Your task to perform on an android device: Open settings on Google Maps Image 0: 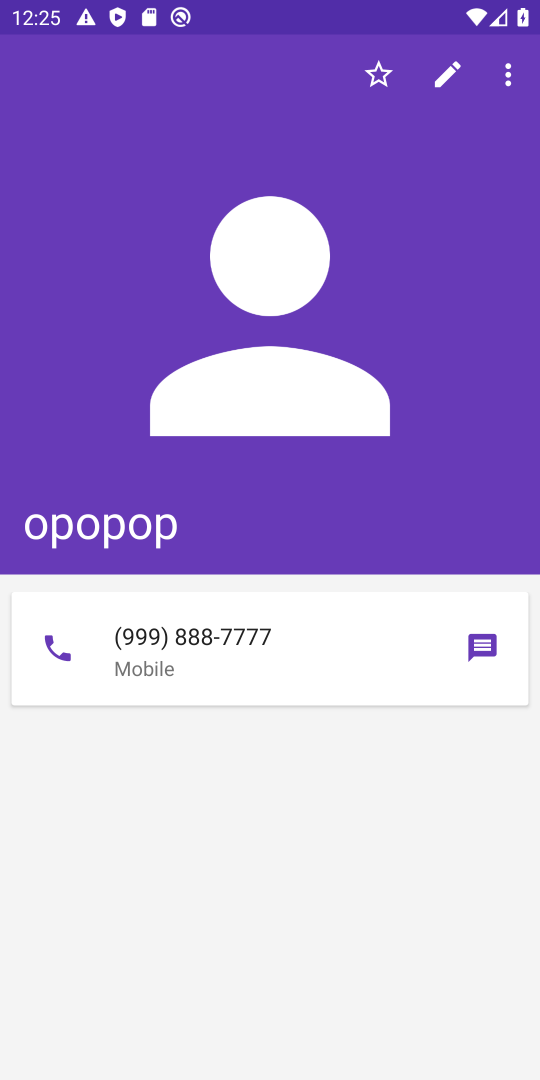
Step 0: press home button
Your task to perform on an android device: Open settings on Google Maps Image 1: 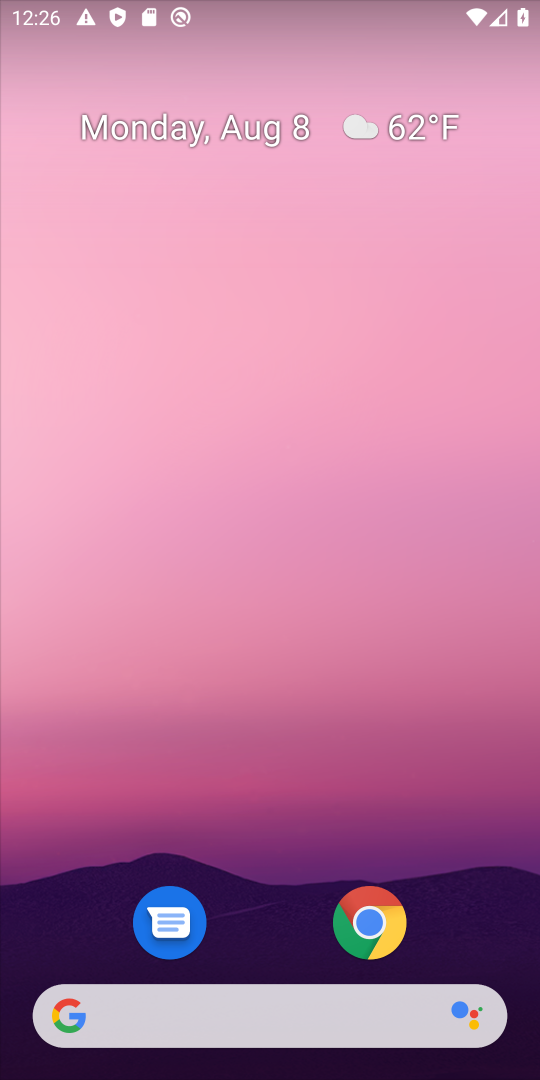
Step 1: drag from (471, 909) to (341, 257)
Your task to perform on an android device: Open settings on Google Maps Image 2: 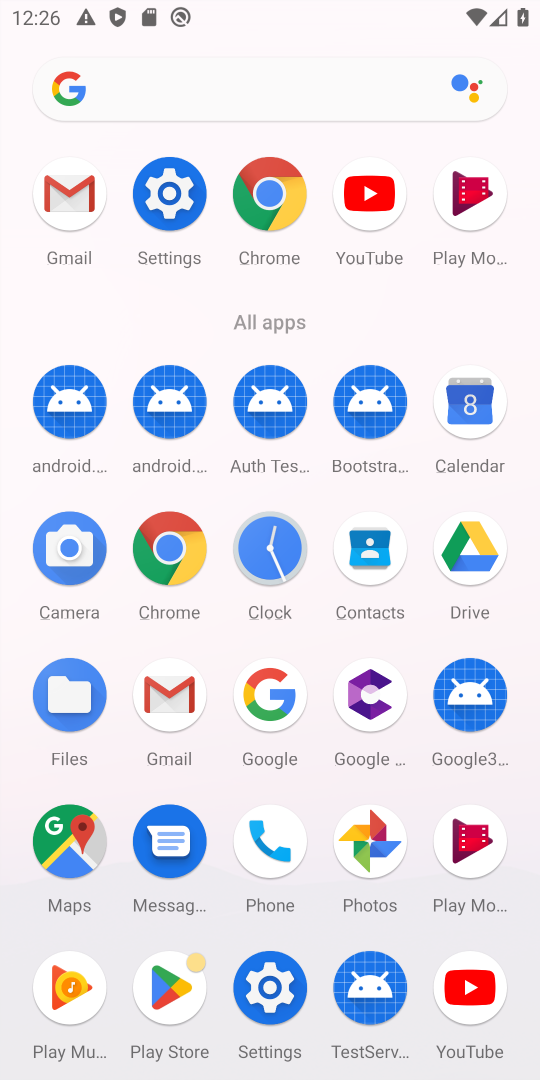
Step 2: click (72, 842)
Your task to perform on an android device: Open settings on Google Maps Image 3: 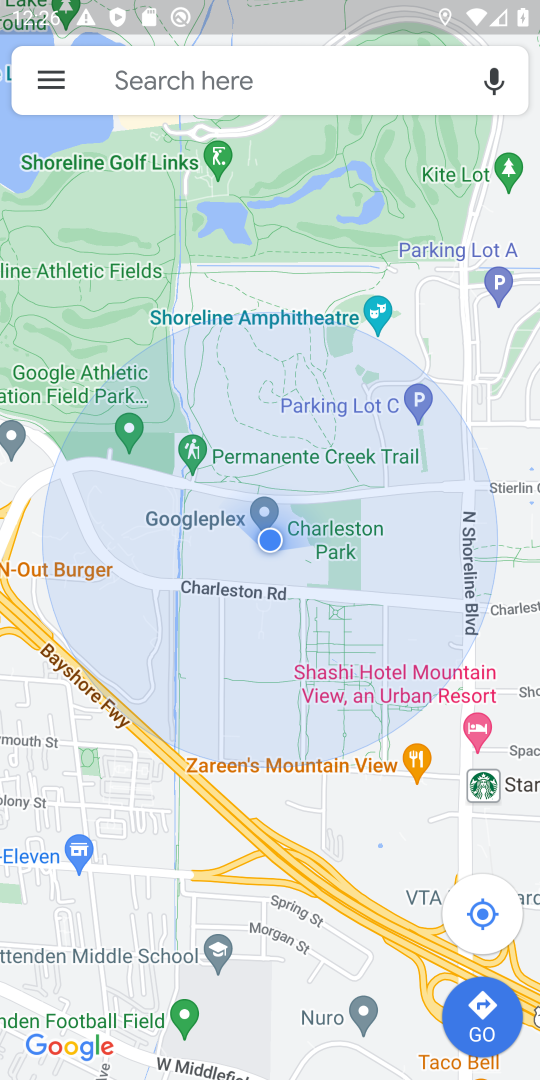
Step 3: click (51, 80)
Your task to perform on an android device: Open settings on Google Maps Image 4: 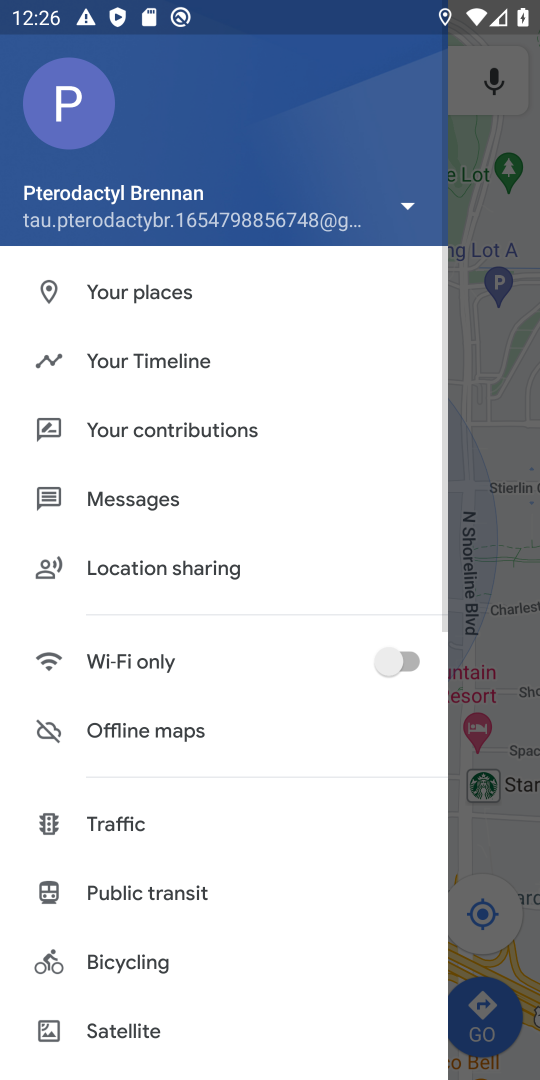
Step 4: drag from (375, 844) to (293, 405)
Your task to perform on an android device: Open settings on Google Maps Image 5: 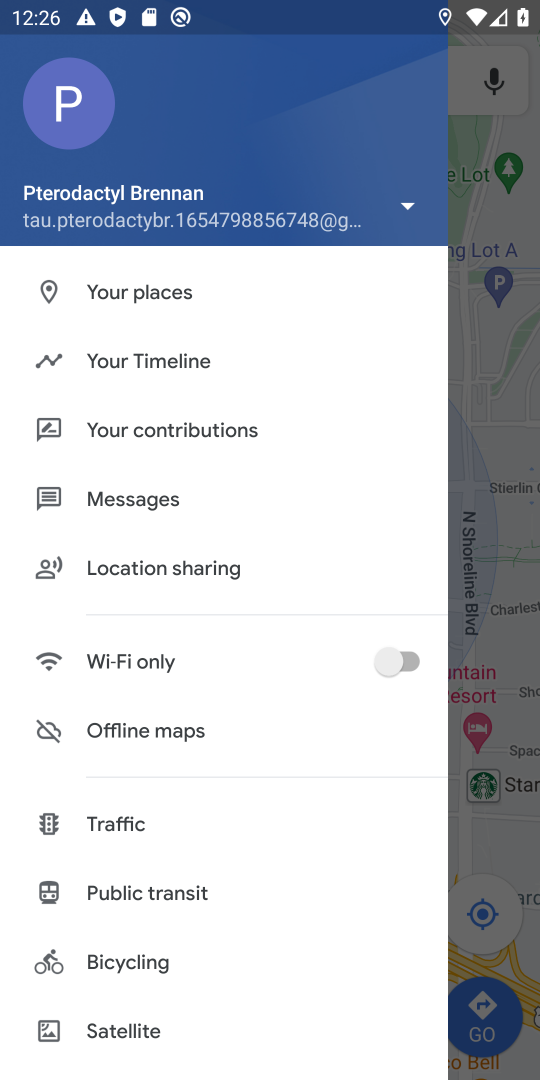
Step 5: drag from (309, 901) to (453, 271)
Your task to perform on an android device: Open settings on Google Maps Image 6: 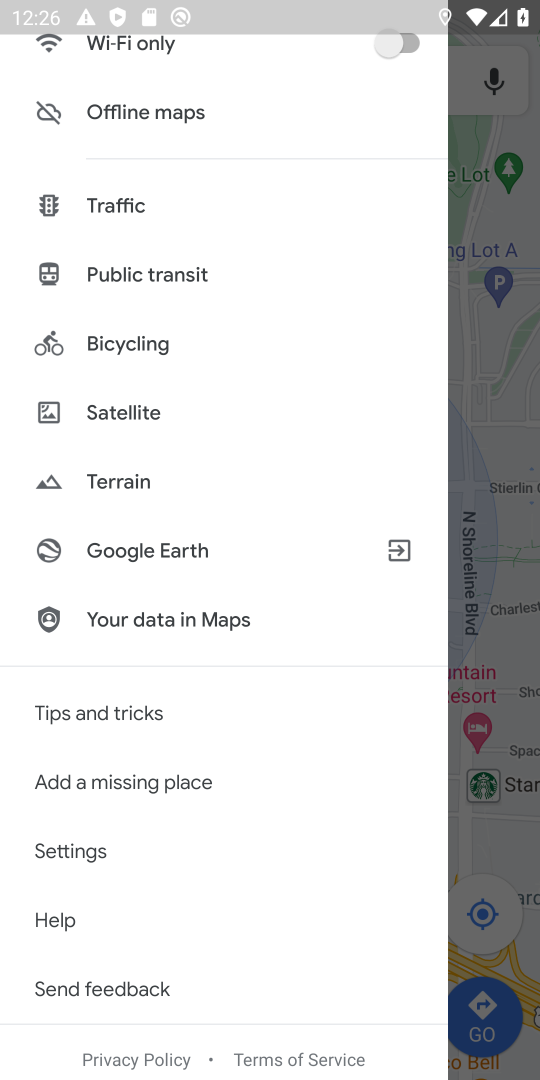
Step 6: click (135, 851)
Your task to perform on an android device: Open settings on Google Maps Image 7: 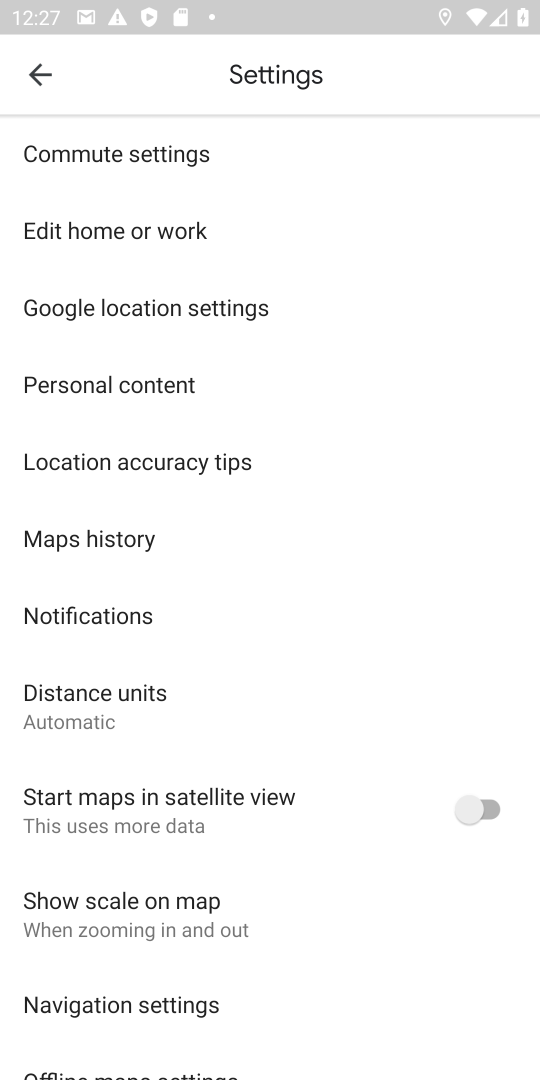
Step 7: task complete